Your task to perform on an android device: turn on data saver in the chrome app Image 0: 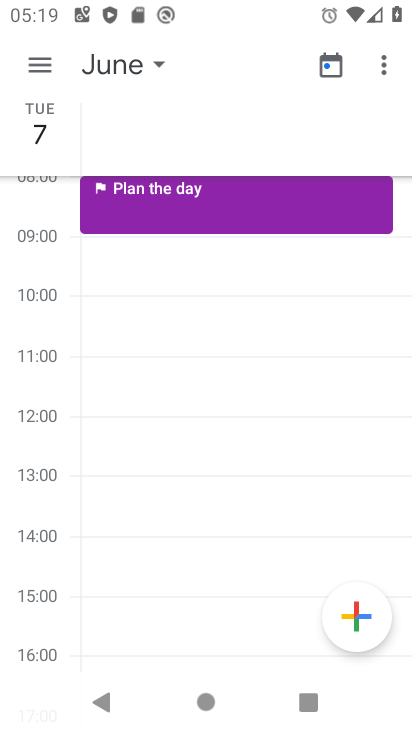
Step 0: press home button
Your task to perform on an android device: turn on data saver in the chrome app Image 1: 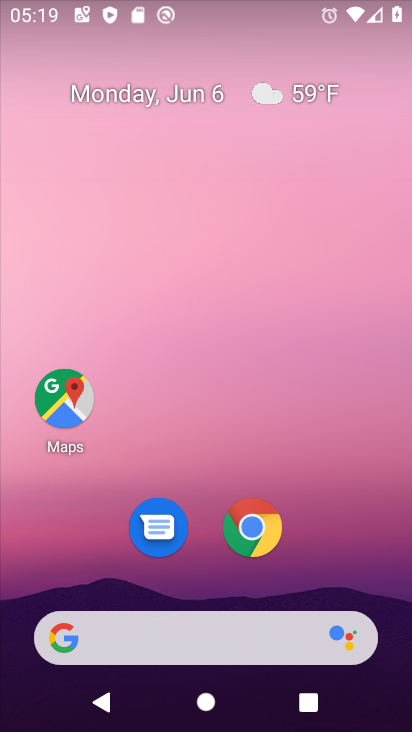
Step 1: click (253, 527)
Your task to perform on an android device: turn on data saver in the chrome app Image 2: 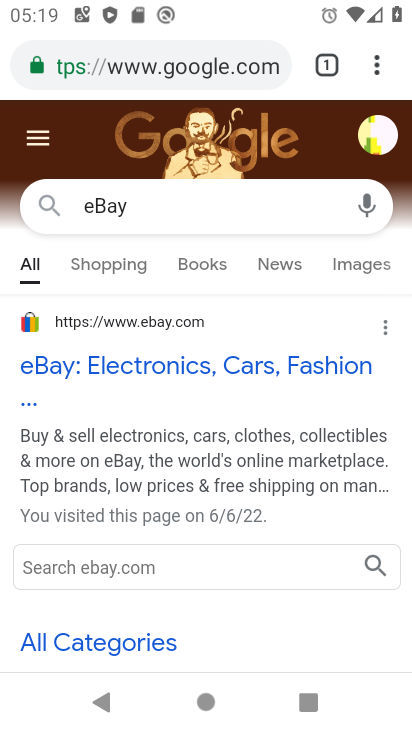
Step 2: click (374, 63)
Your task to perform on an android device: turn on data saver in the chrome app Image 3: 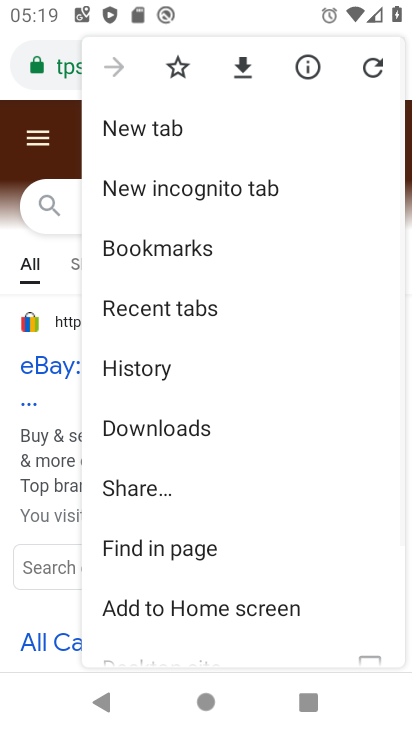
Step 3: drag from (295, 536) to (281, 224)
Your task to perform on an android device: turn on data saver in the chrome app Image 4: 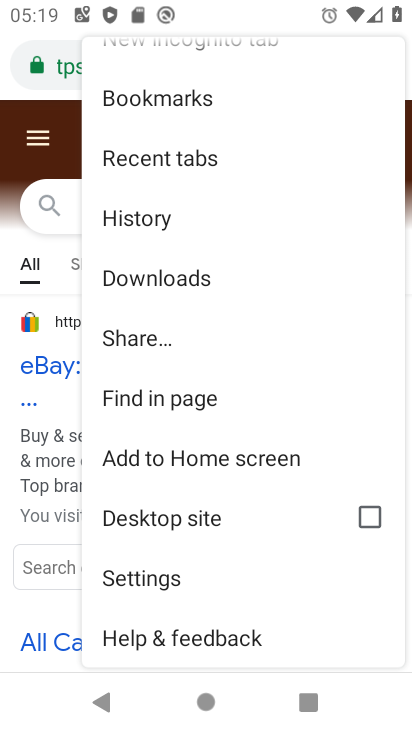
Step 4: click (155, 578)
Your task to perform on an android device: turn on data saver in the chrome app Image 5: 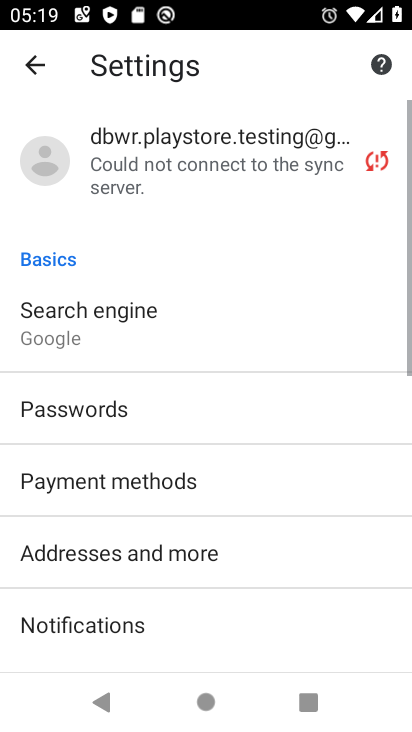
Step 5: drag from (193, 623) to (281, 145)
Your task to perform on an android device: turn on data saver in the chrome app Image 6: 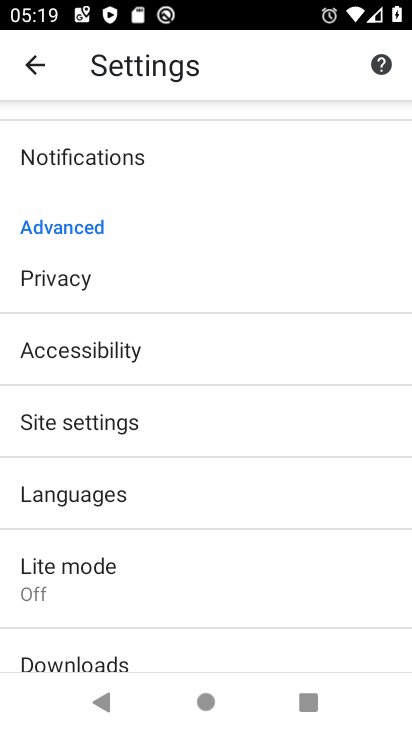
Step 6: drag from (242, 606) to (227, 173)
Your task to perform on an android device: turn on data saver in the chrome app Image 7: 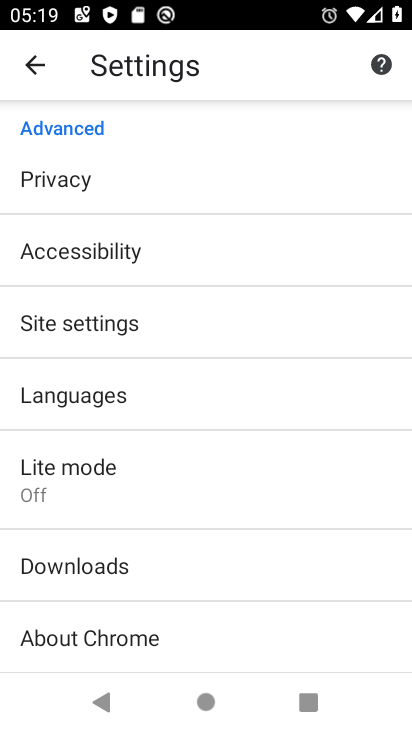
Step 7: drag from (220, 556) to (260, 170)
Your task to perform on an android device: turn on data saver in the chrome app Image 8: 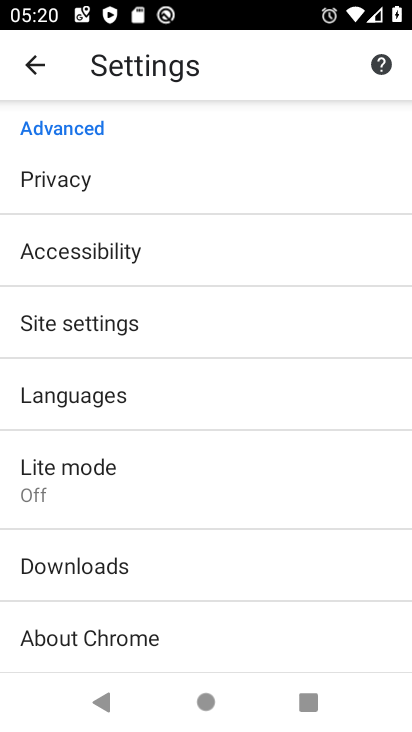
Step 8: click (50, 324)
Your task to perform on an android device: turn on data saver in the chrome app Image 9: 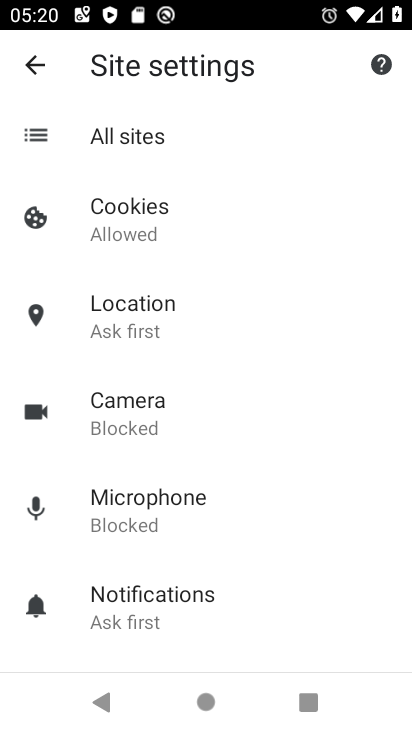
Step 9: drag from (285, 607) to (314, 221)
Your task to perform on an android device: turn on data saver in the chrome app Image 10: 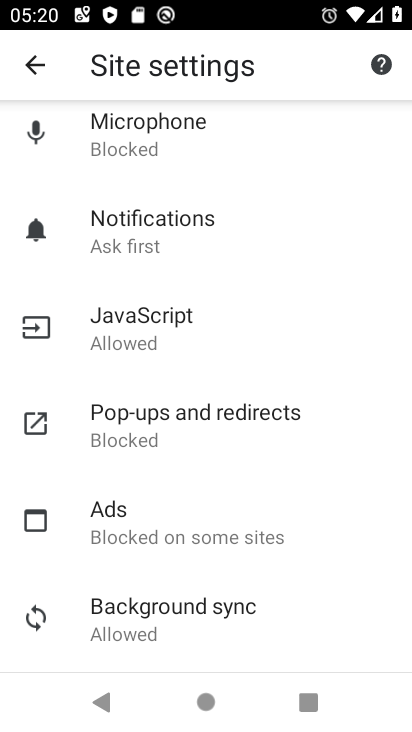
Step 10: click (36, 62)
Your task to perform on an android device: turn on data saver in the chrome app Image 11: 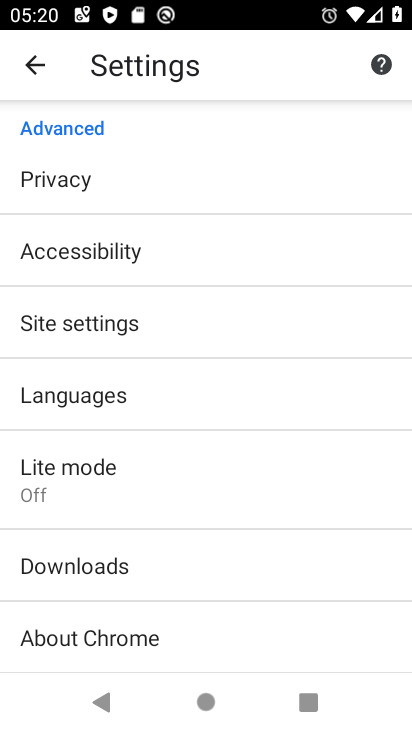
Step 11: click (66, 473)
Your task to perform on an android device: turn on data saver in the chrome app Image 12: 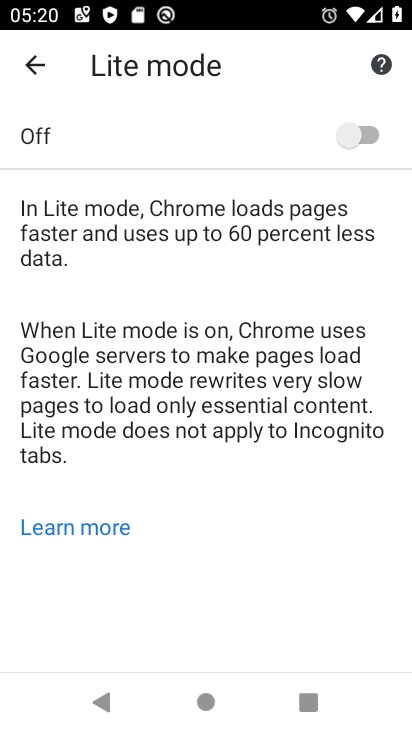
Step 12: click (367, 137)
Your task to perform on an android device: turn on data saver in the chrome app Image 13: 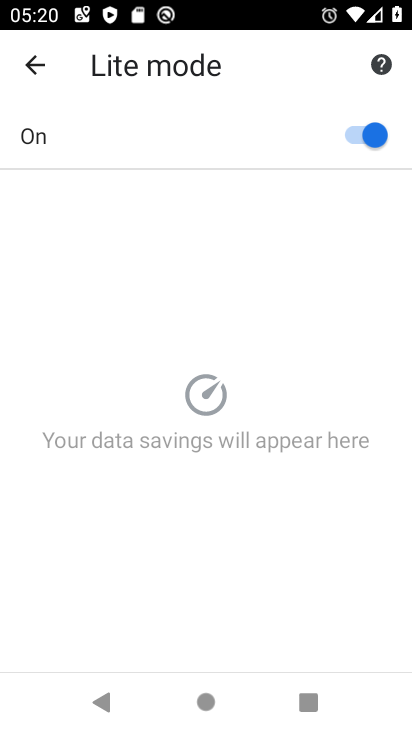
Step 13: task complete